Your task to perform on an android device: Open my contact list Image 0: 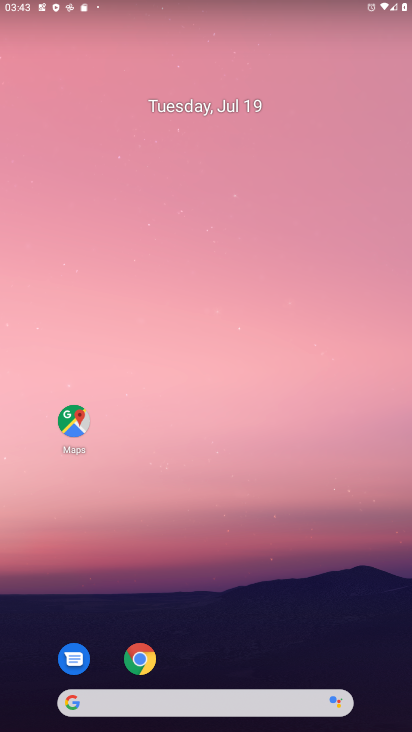
Step 0: press home button
Your task to perform on an android device: Open my contact list Image 1: 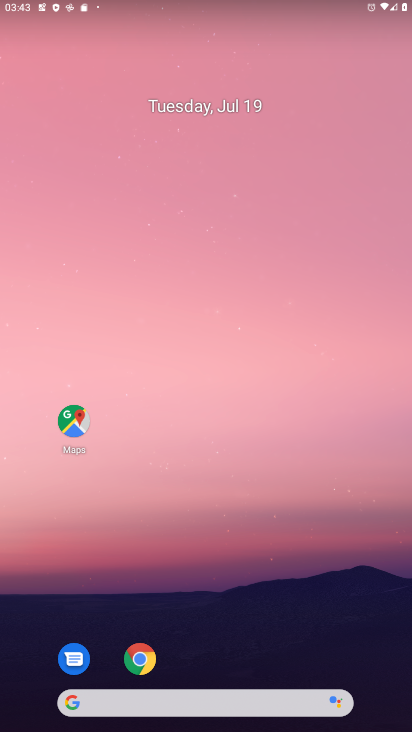
Step 1: drag from (278, 621) to (319, 567)
Your task to perform on an android device: Open my contact list Image 2: 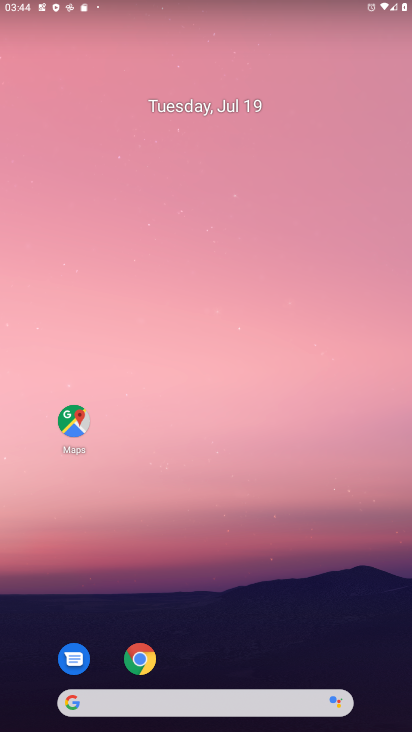
Step 2: drag from (246, 671) to (320, 186)
Your task to perform on an android device: Open my contact list Image 3: 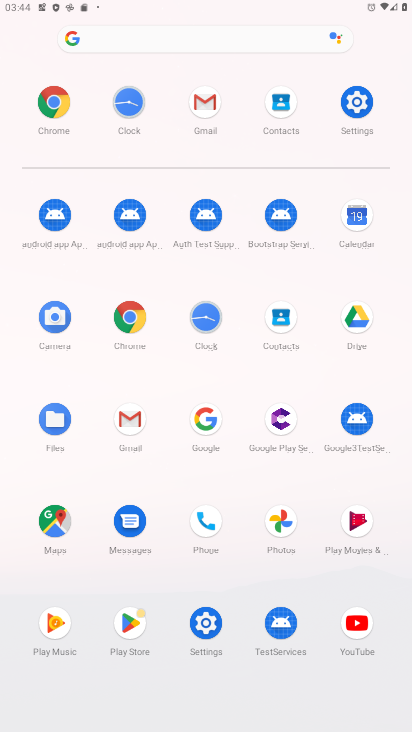
Step 3: click (287, 344)
Your task to perform on an android device: Open my contact list Image 4: 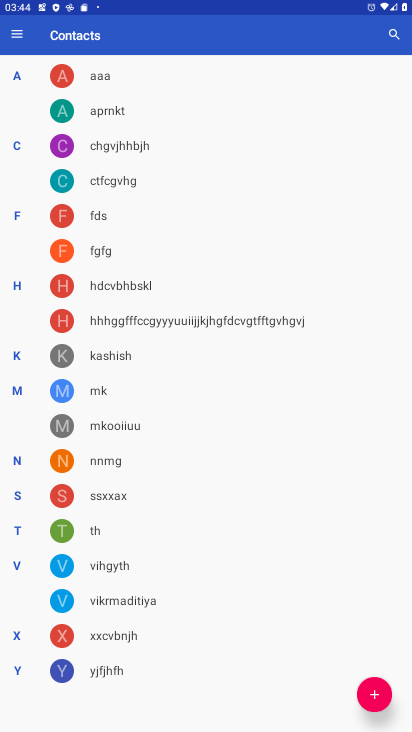
Step 4: task complete